Your task to perform on an android device: turn on the 12-hour format for clock Image 0: 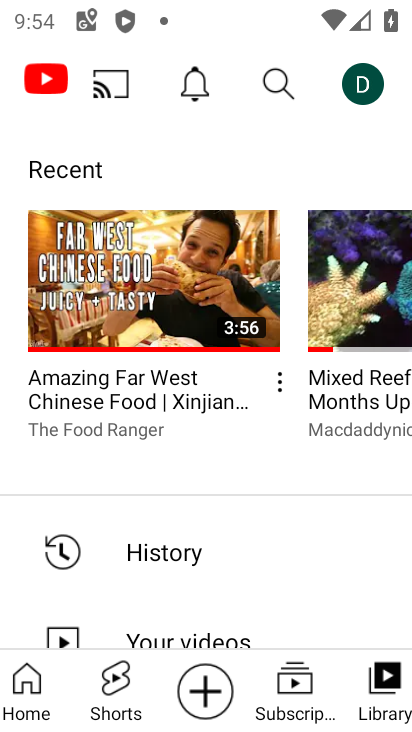
Step 0: press home button
Your task to perform on an android device: turn on the 12-hour format for clock Image 1: 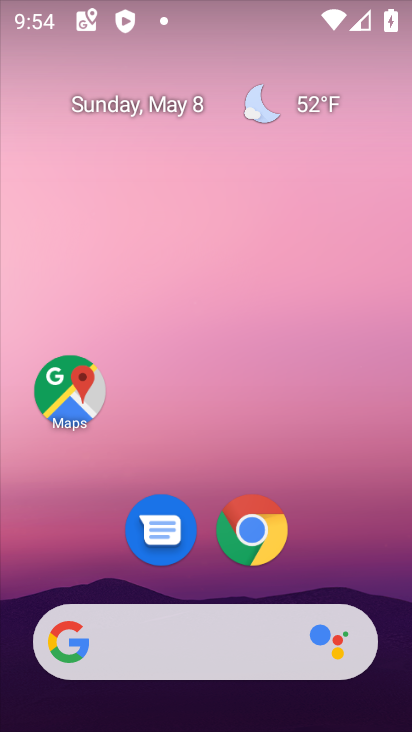
Step 1: drag from (382, 538) to (356, 132)
Your task to perform on an android device: turn on the 12-hour format for clock Image 2: 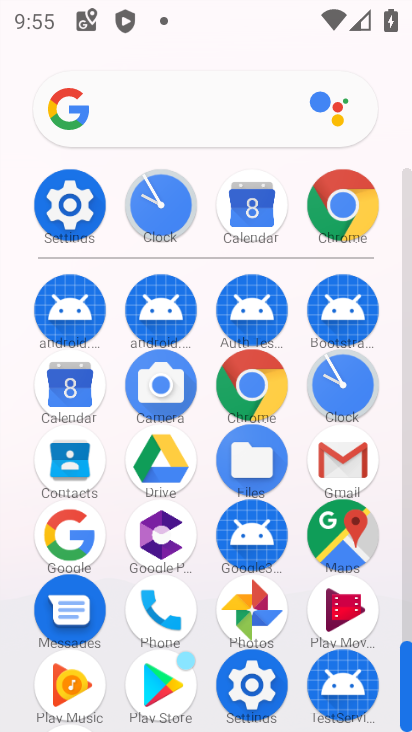
Step 2: click (342, 398)
Your task to perform on an android device: turn on the 12-hour format for clock Image 3: 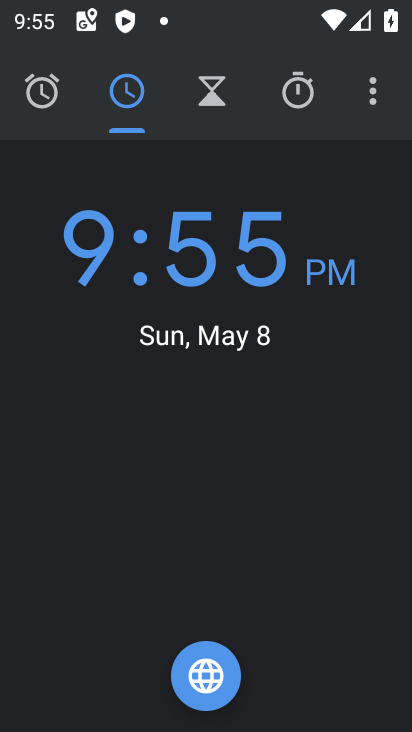
Step 3: click (373, 110)
Your task to perform on an android device: turn on the 12-hour format for clock Image 4: 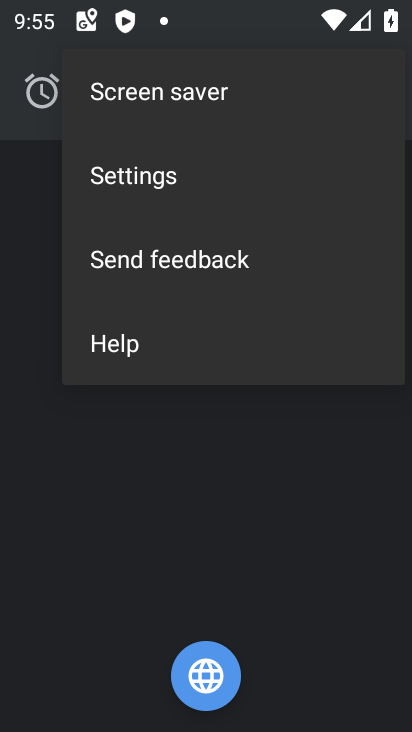
Step 4: click (193, 178)
Your task to perform on an android device: turn on the 12-hour format for clock Image 5: 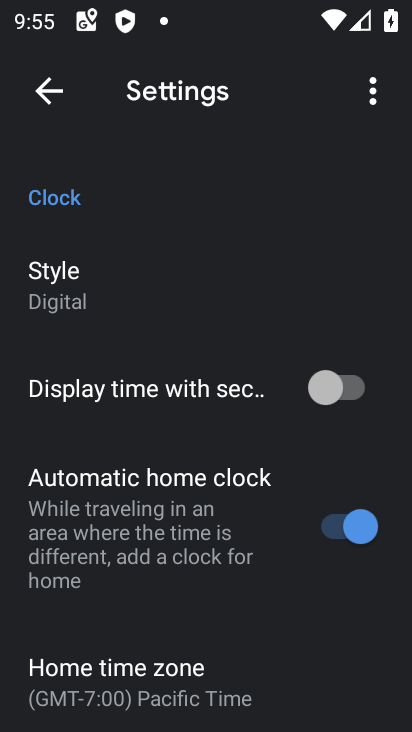
Step 5: drag from (243, 647) to (221, 333)
Your task to perform on an android device: turn on the 12-hour format for clock Image 6: 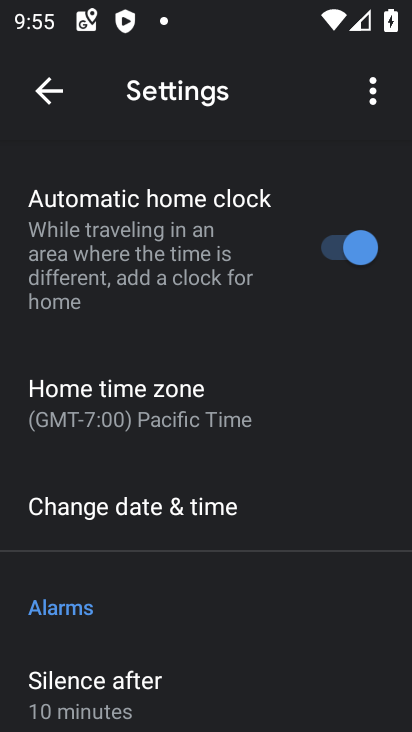
Step 6: click (200, 524)
Your task to perform on an android device: turn on the 12-hour format for clock Image 7: 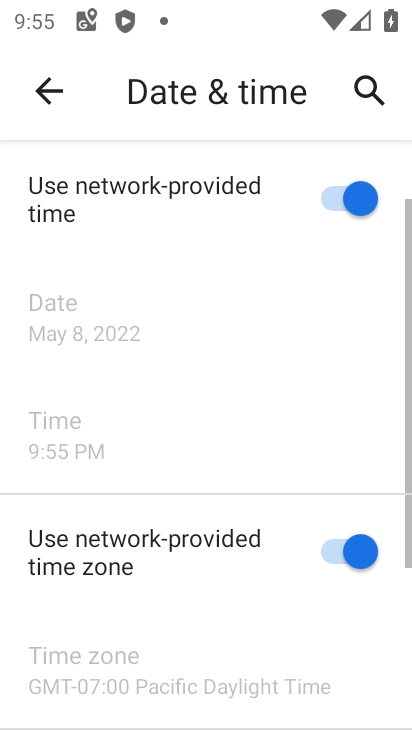
Step 7: task complete